Your task to perform on an android device: Open Youtube and go to the subscriptions tab Image 0: 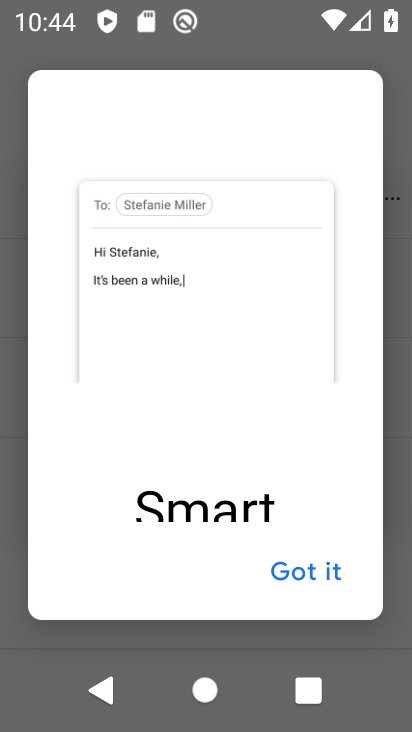
Step 0: press back button
Your task to perform on an android device: Open Youtube and go to the subscriptions tab Image 1: 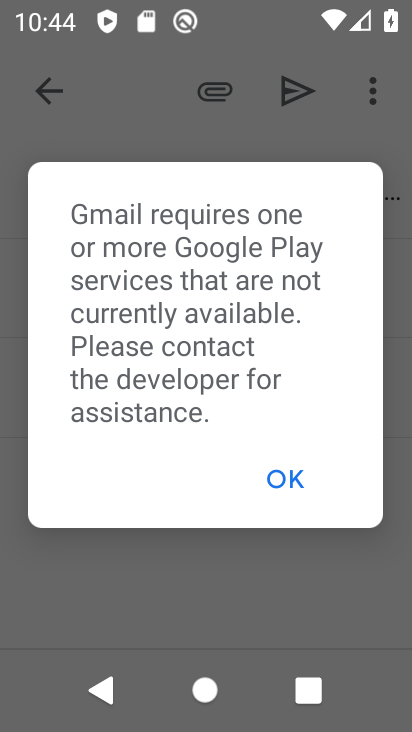
Step 1: press home button
Your task to perform on an android device: Open Youtube and go to the subscriptions tab Image 2: 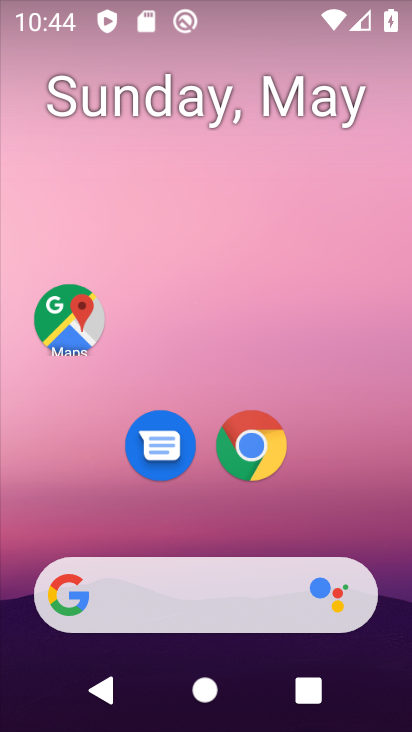
Step 2: drag from (201, 516) to (272, 37)
Your task to perform on an android device: Open Youtube and go to the subscriptions tab Image 3: 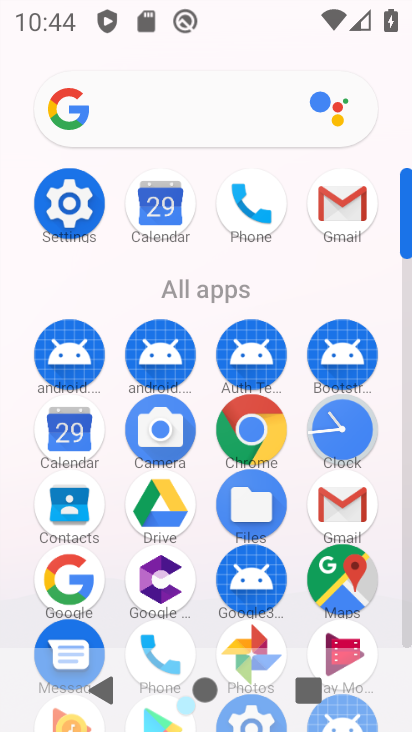
Step 3: drag from (220, 559) to (280, 44)
Your task to perform on an android device: Open Youtube and go to the subscriptions tab Image 4: 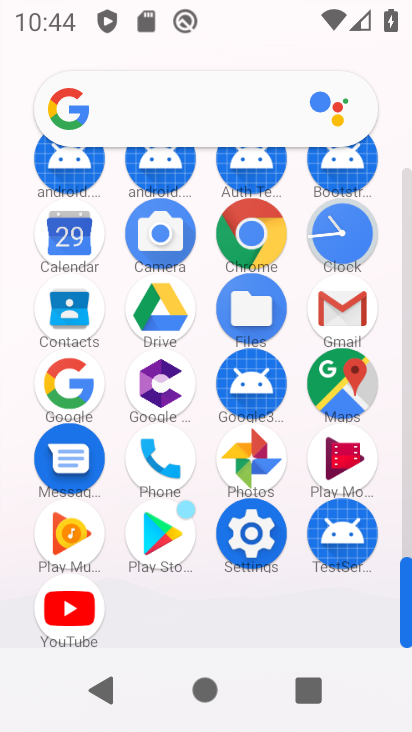
Step 4: click (66, 609)
Your task to perform on an android device: Open Youtube and go to the subscriptions tab Image 5: 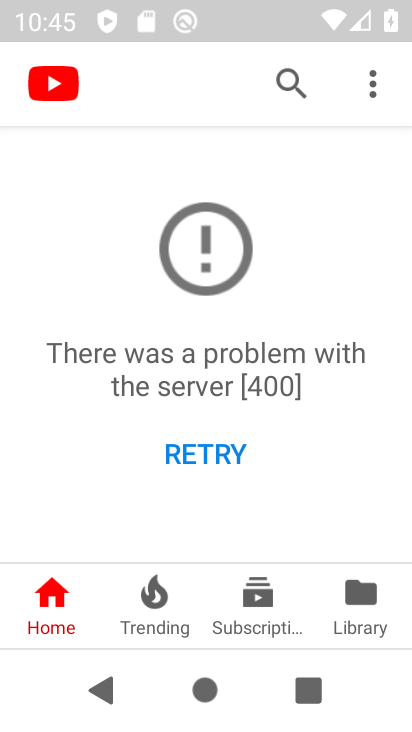
Step 5: click (256, 602)
Your task to perform on an android device: Open Youtube and go to the subscriptions tab Image 6: 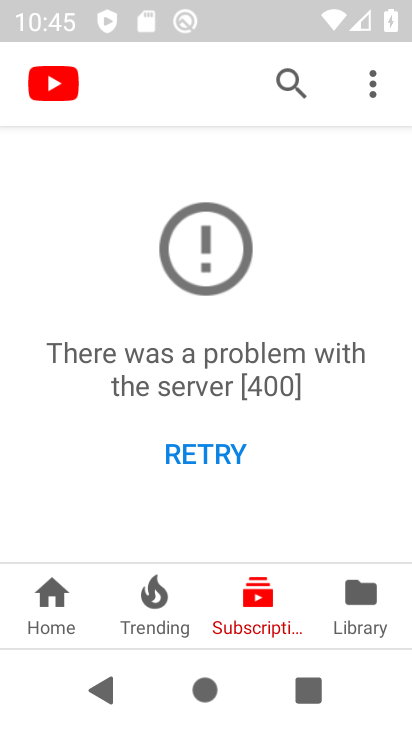
Step 6: task complete